Your task to perform on an android device: Open the map Image 0: 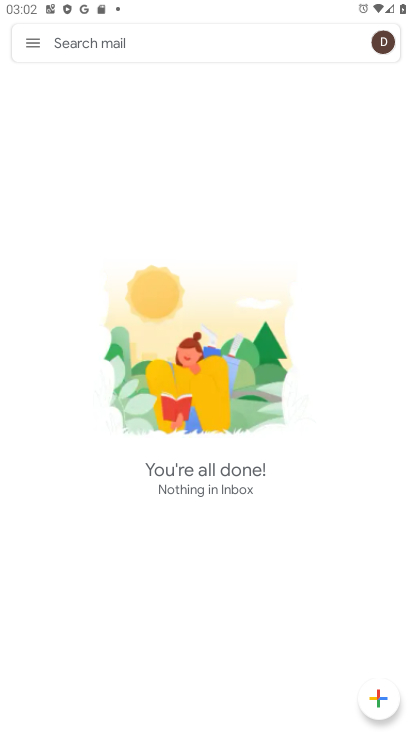
Step 0: press home button
Your task to perform on an android device: Open the map Image 1: 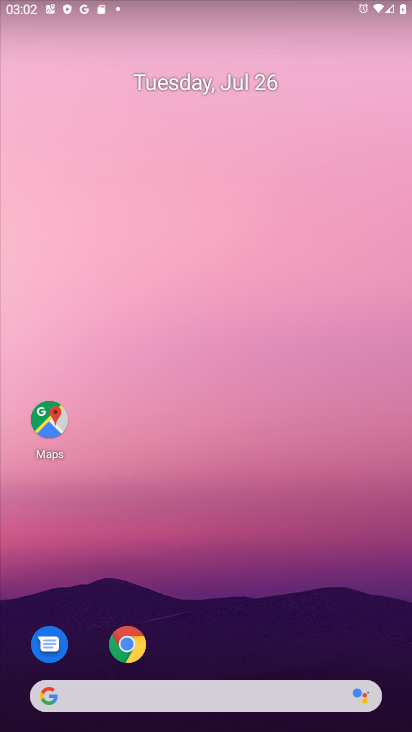
Step 1: click (48, 417)
Your task to perform on an android device: Open the map Image 2: 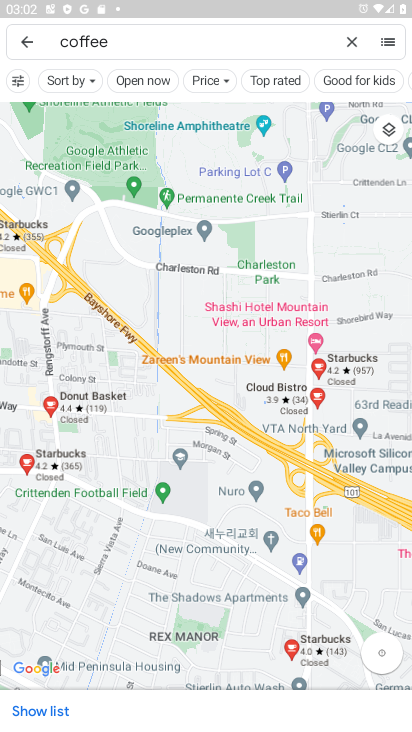
Step 2: task complete